Your task to perform on an android device: toggle wifi Image 0: 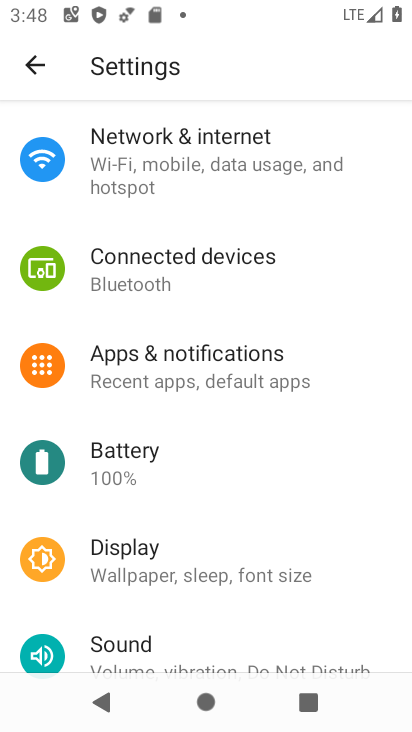
Step 0: click (139, 155)
Your task to perform on an android device: toggle wifi Image 1: 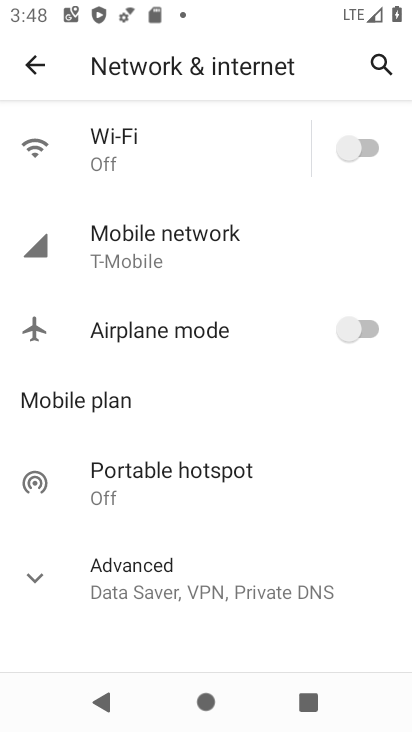
Step 1: click (372, 150)
Your task to perform on an android device: toggle wifi Image 2: 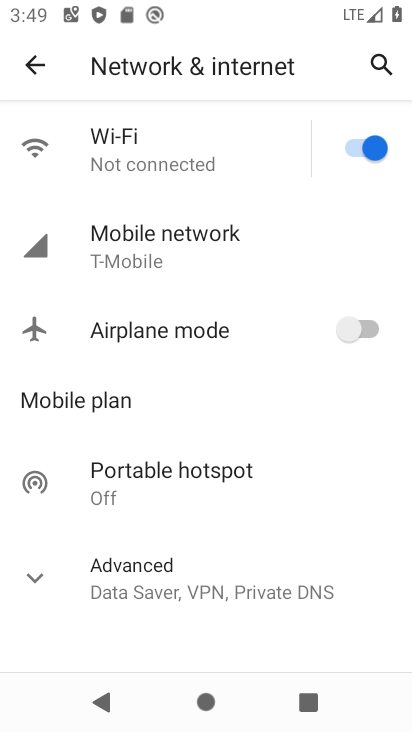
Step 2: task complete